Your task to perform on an android device: turn off sleep mode Image 0: 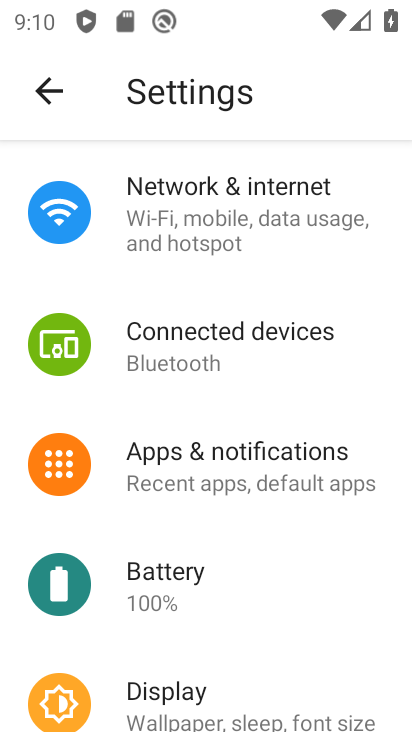
Step 0: drag from (309, 642) to (286, 362)
Your task to perform on an android device: turn off sleep mode Image 1: 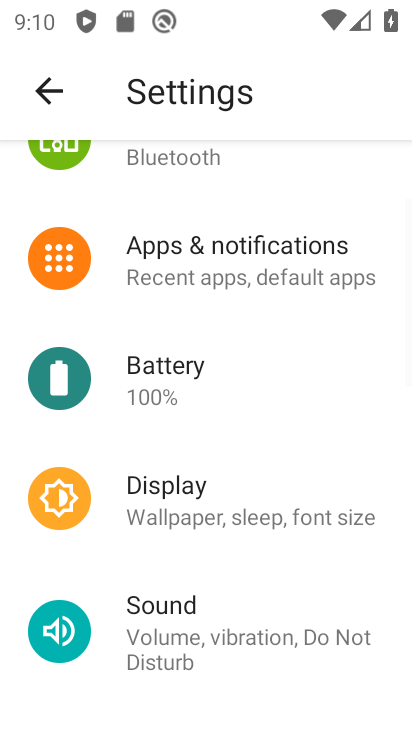
Step 1: click (266, 517)
Your task to perform on an android device: turn off sleep mode Image 2: 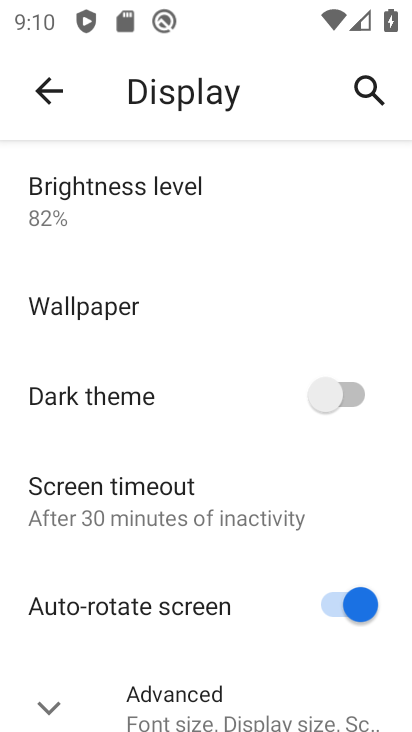
Step 2: click (211, 705)
Your task to perform on an android device: turn off sleep mode Image 3: 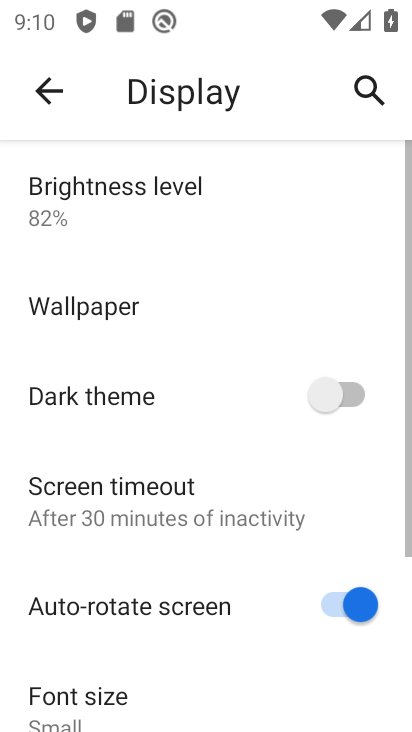
Step 3: task complete